Your task to perform on an android device: Search for razer thresher on walmart.com, select the first entry, and add it to the cart. Image 0: 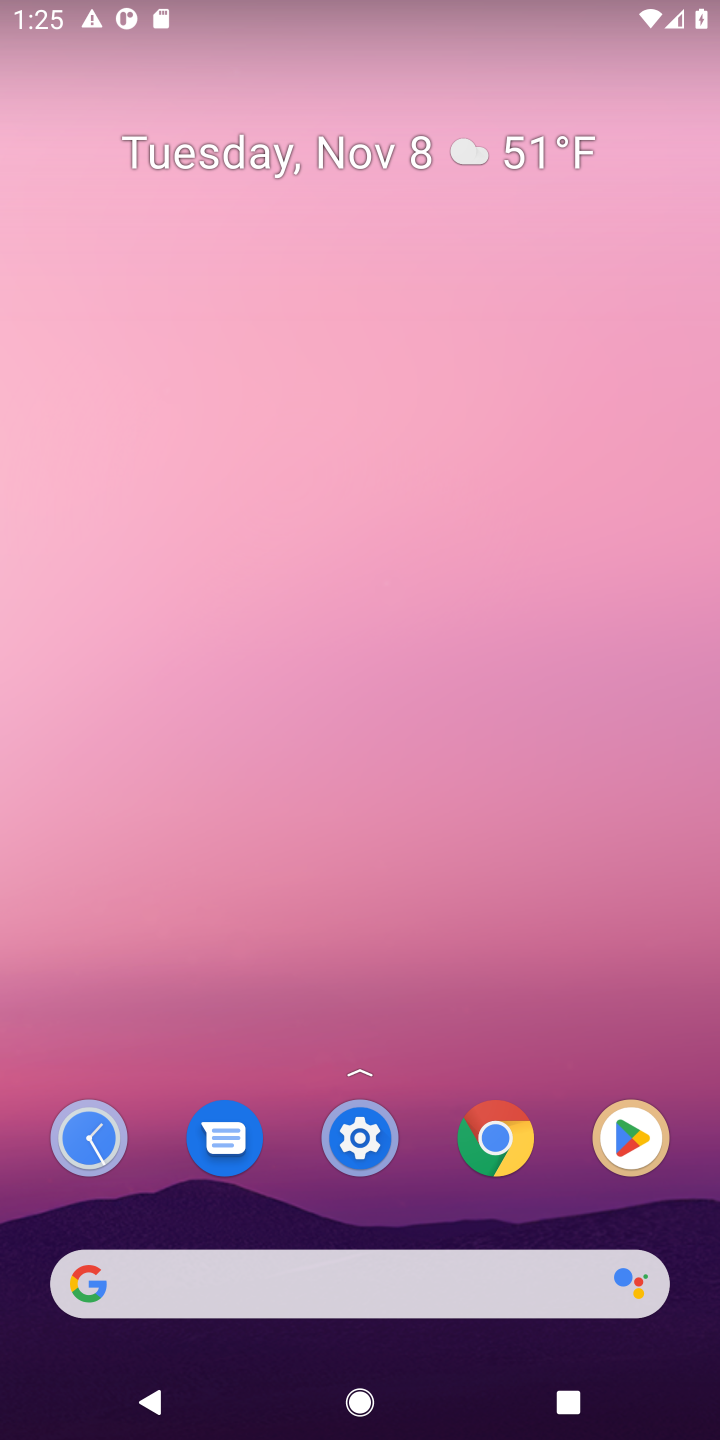
Step 0: click (510, 1279)
Your task to perform on an android device: Search for razer thresher on walmart.com, select the first entry, and add it to the cart. Image 1: 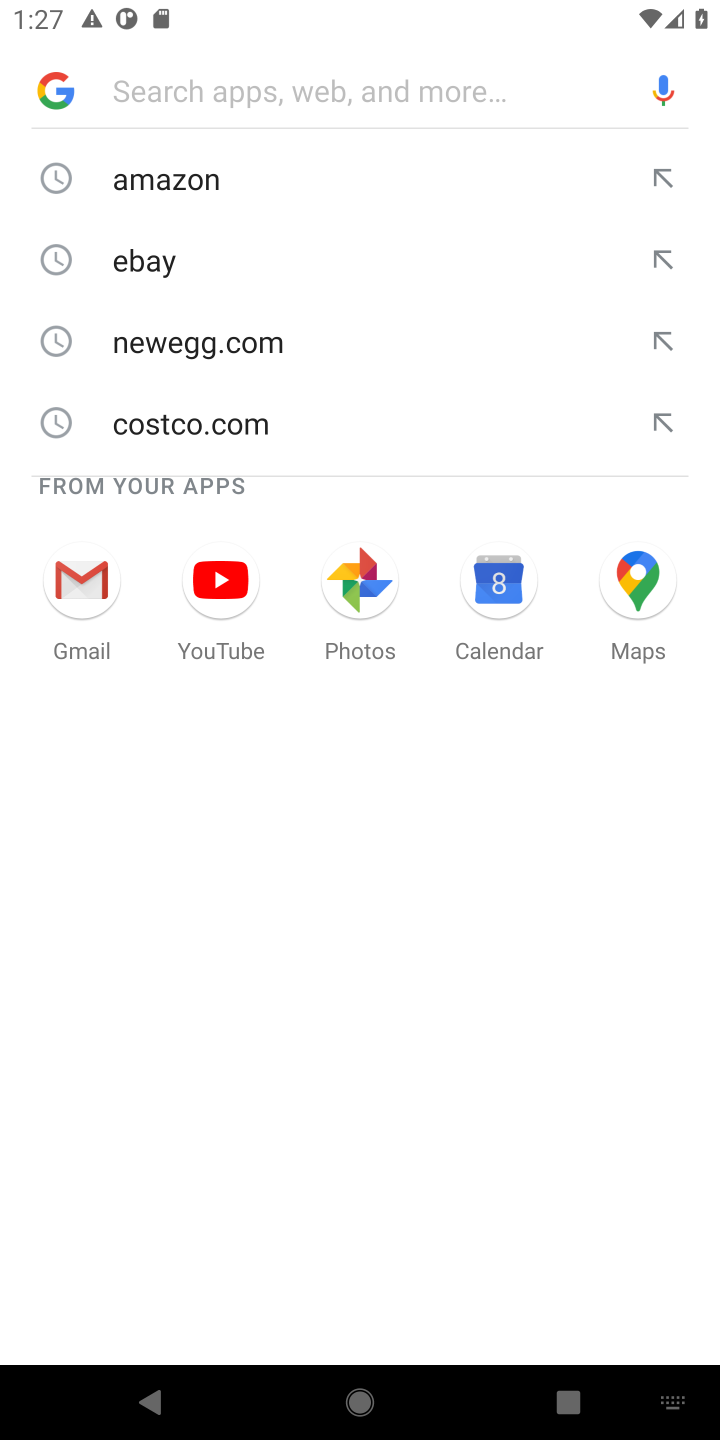
Step 1: type "walmart"
Your task to perform on an android device: Search for razer thresher on walmart.com, select the first entry, and add it to the cart. Image 2: 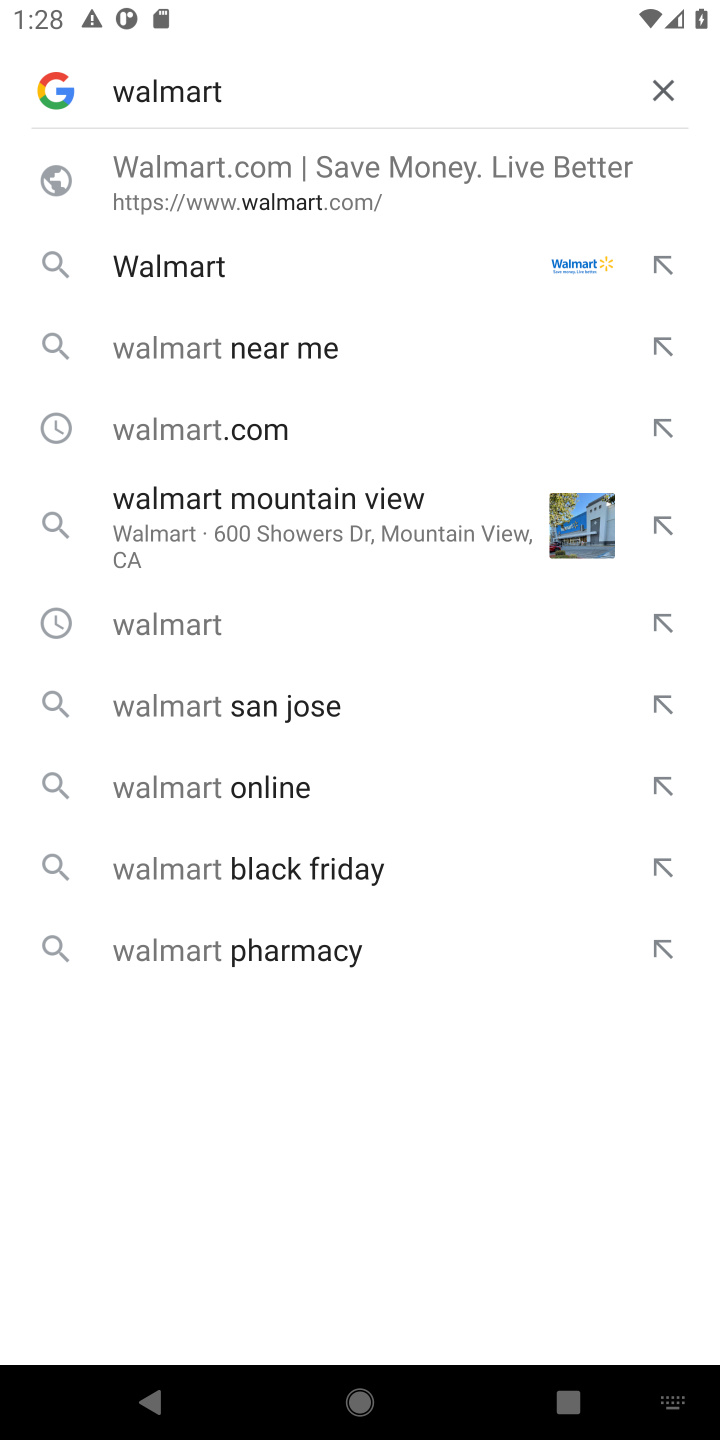
Step 2: click (202, 175)
Your task to perform on an android device: Search for razer thresher on walmart.com, select the first entry, and add it to the cart. Image 3: 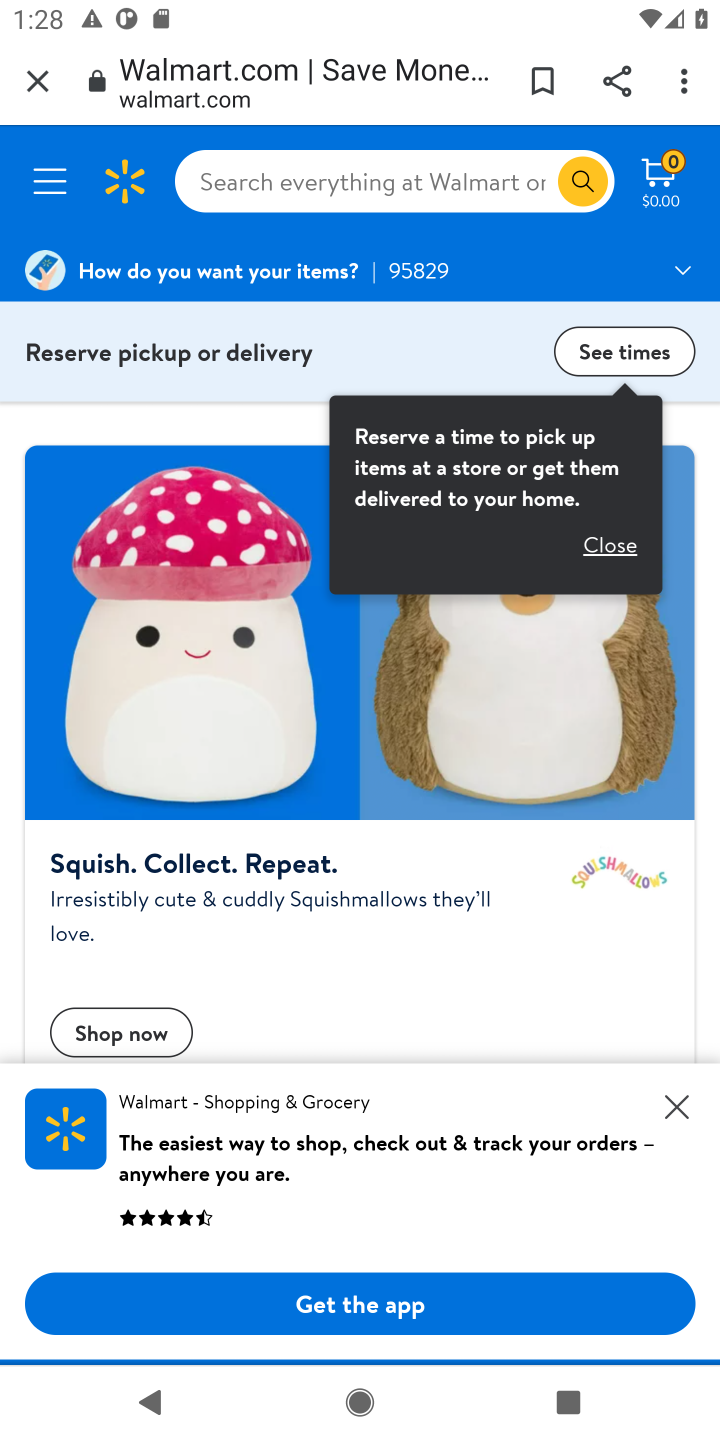
Step 3: task complete